Your task to perform on an android device: Show me productivity apps on the Play Store Image 0: 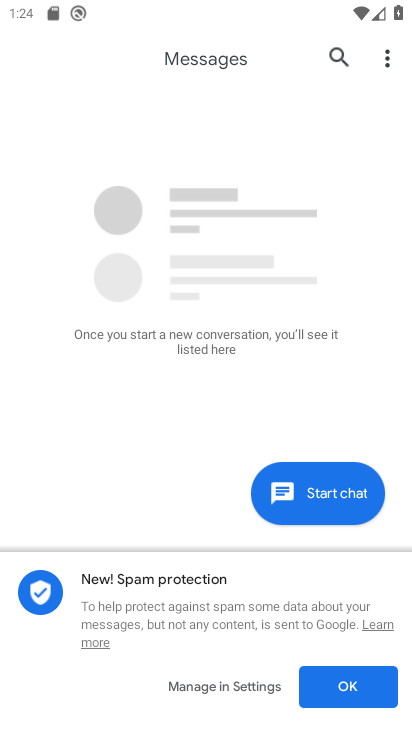
Step 0: press home button
Your task to perform on an android device: Show me productivity apps on the Play Store Image 1: 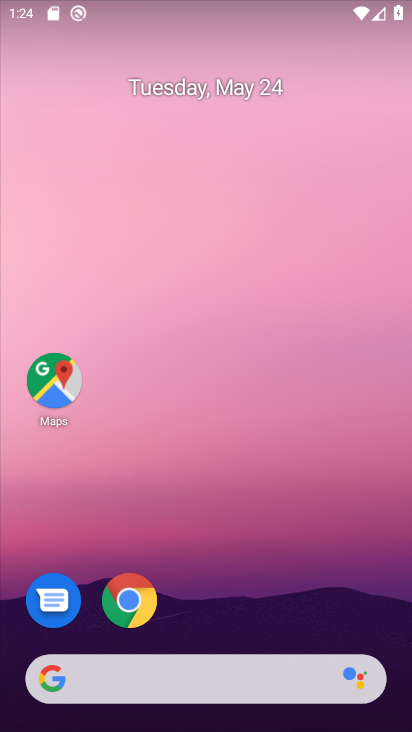
Step 1: drag from (121, 272) to (118, 212)
Your task to perform on an android device: Show me productivity apps on the Play Store Image 2: 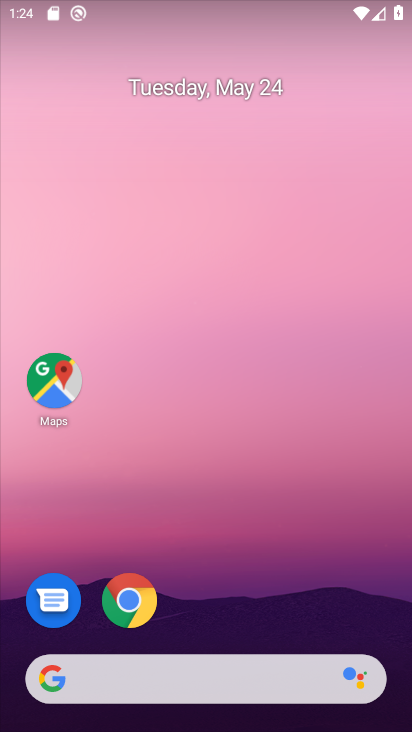
Step 2: drag from (240, 611) to (232, 107)
Your task to perform on an android device: Show me productivity apps on the Play Store Image 3: 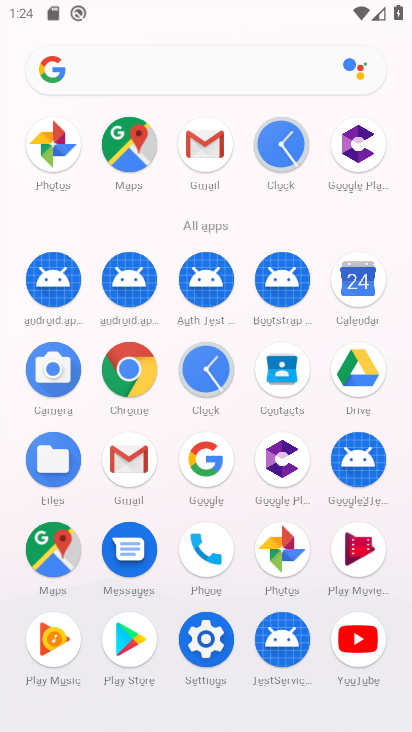
Step 3: click (135, 653)
Your task to perform on an android device: Show me productivity apps on the Play Store Image 4: 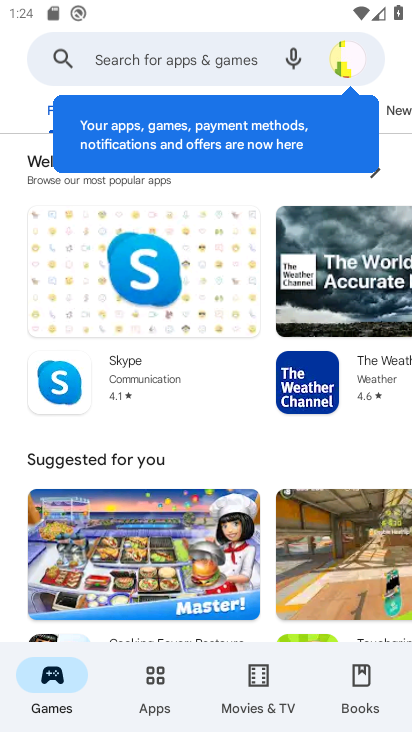
Step 4: click (92, 48)
Your task to perform on an android device: Show me productivity apps on the Play Store Image 5: 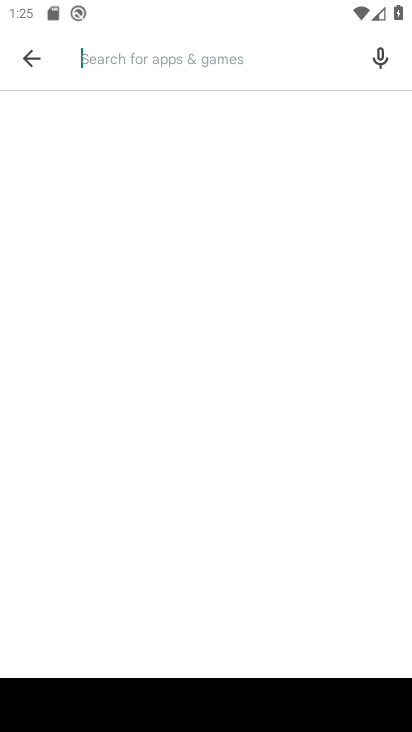
Step 5: type "Productivity app"
Your task to perform on an android device: Show me productivity apps on the Play Store Image 6: 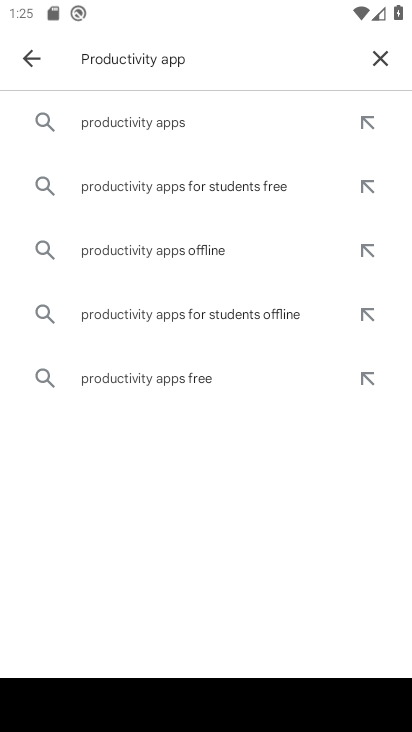
Step 6: click (255, 107)
Your task to perform on an android device: Show me productivity apps on the Play Store Image 7: 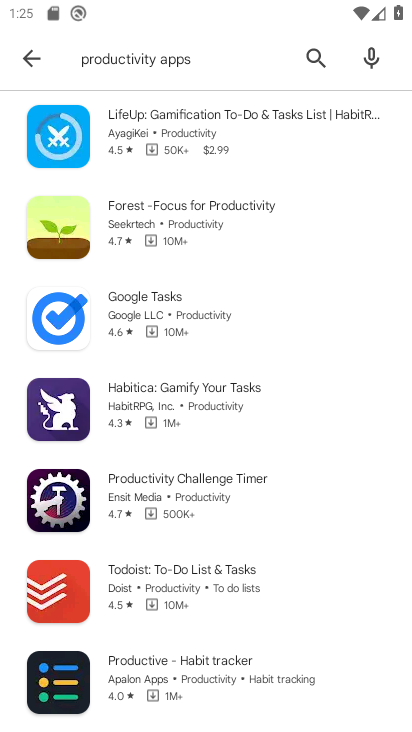
Step 7: task complete